Your task to perform on an android device: see tabs open on other devices in the chrome app Image 0: 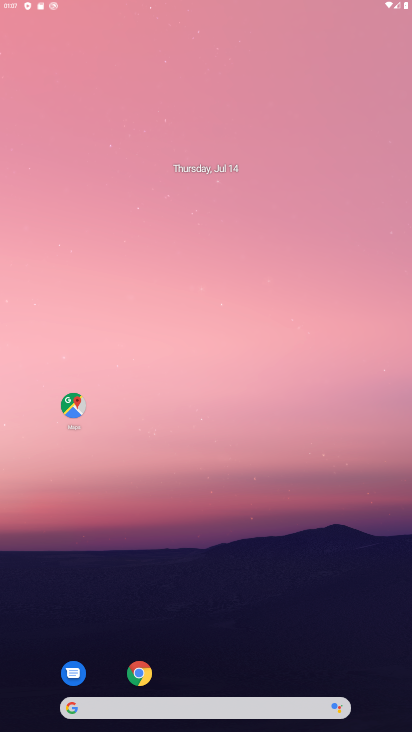
Step 0: press home button
Your task to perform on an android device: see tabs open on other devices in the chrome app Image 1: 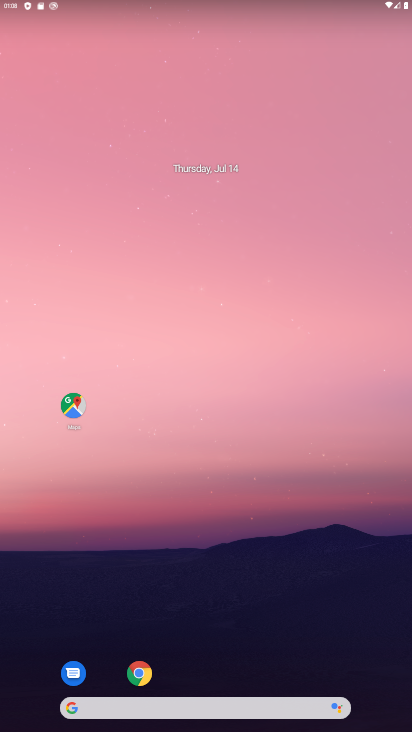
Step 1: click (151, 683)
Your task to perform on an android device: see tabs open on other devices in the chrome app Image 2: 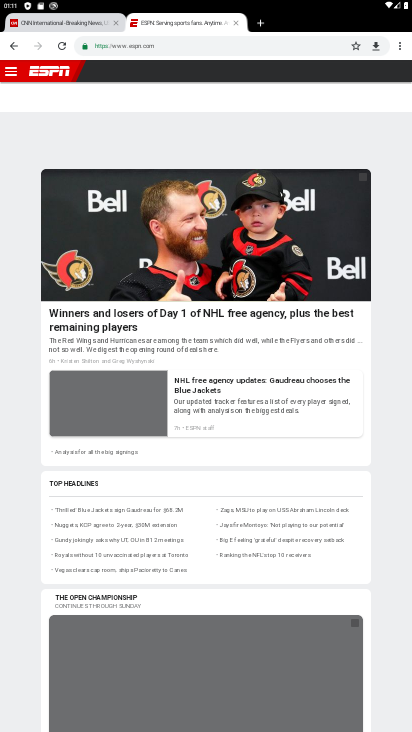
Step 2: task complete